Your task to perform on an android device: refresh tabs in the chrome app Image 0: 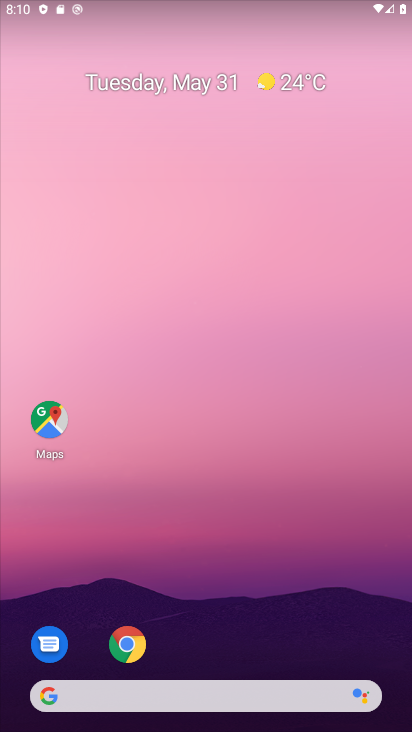
Step 0: drag from (305, 613) to (315, 251)
Your task to perform on an android device: refresh tabs in the chrome app Image 1: 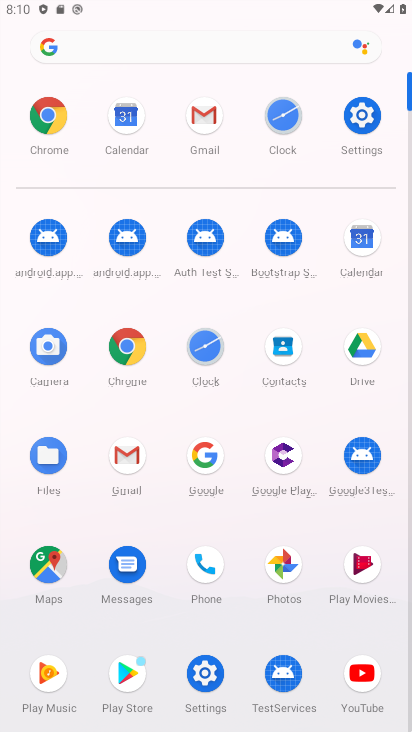
Step 1: click (121, 346)
Your task to perform on an android device: refresh tabs in the chrome app Image 2: 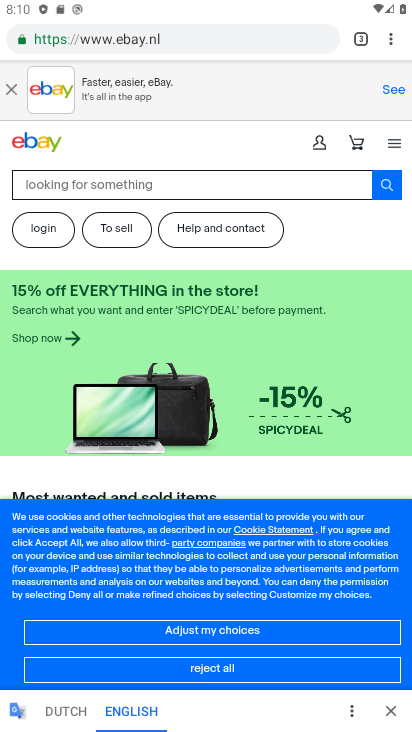
Step 2: click (398, 43)
Your task to perform on an android device: refresh tabs in the chrome app Image 3: 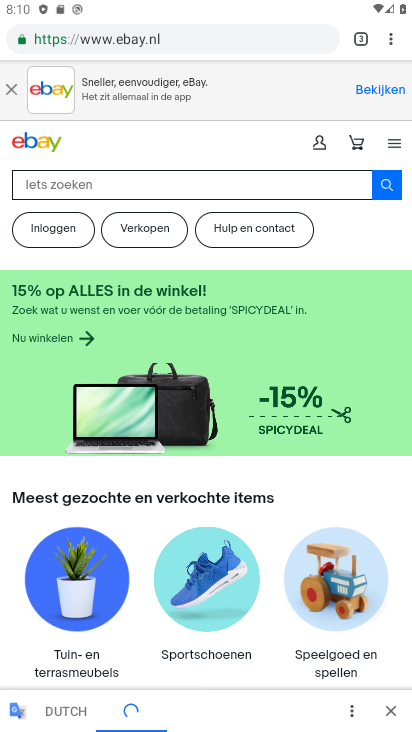
Step 3: task complete